Your task to perform on an android device: check battery use Image 0: 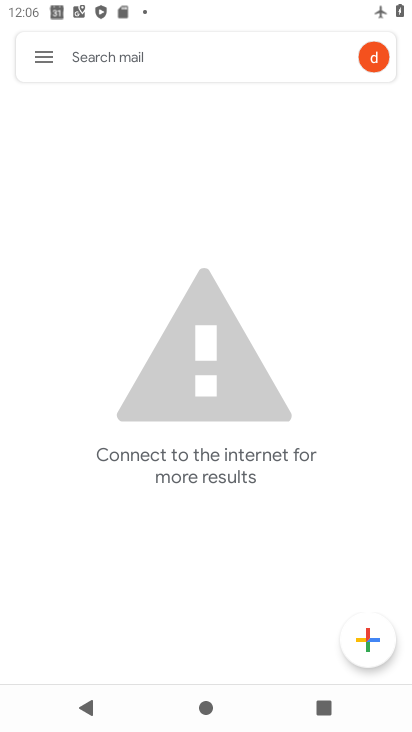
Step 0: press home button
Your task to perform on an android device: check battery use Image 1: 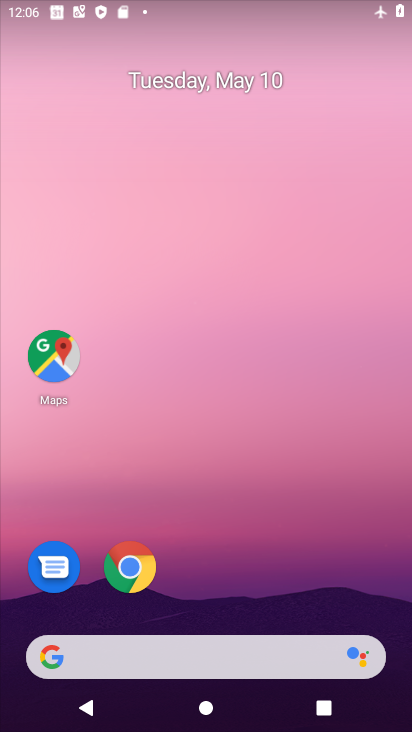
Step 1: drag from (350, 593) to (320, 46)
Your task to perform on an android device: check battery use Image 2: 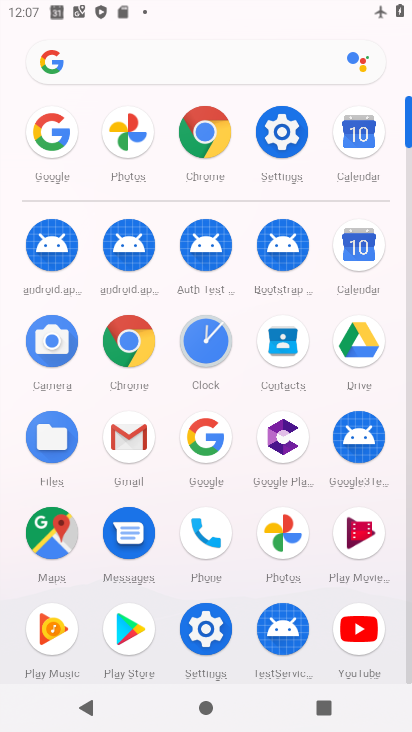
Step 2: click (198, 640)
Your task to perform on an android device: check battery use Image 3: 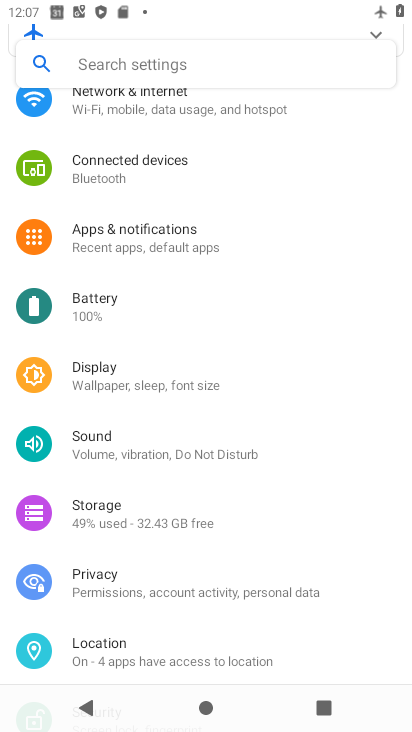
Step 3: click (117, 304)
Your task to perform on an android device: check battery use Image 4: 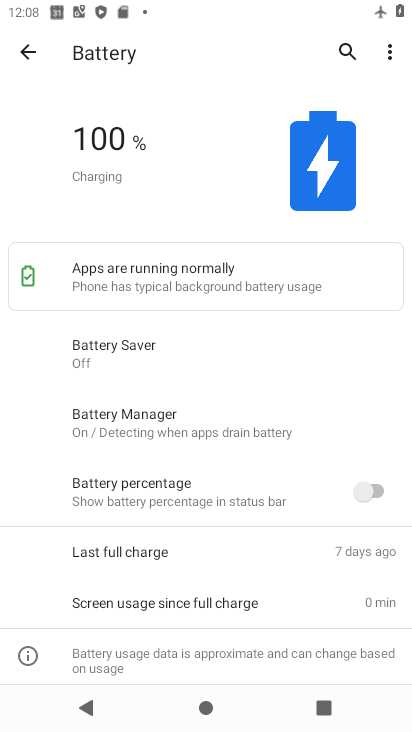
Step 4: task complete